Your task to perform on an android device: change notifications settings Image 0: 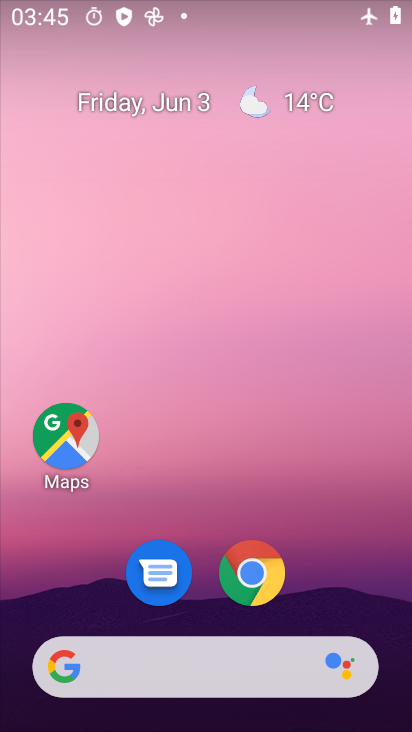
Step 0: drag from (225, 674) to (253, 3)
Your task to perform on an android device: change notifications settings Image 1: 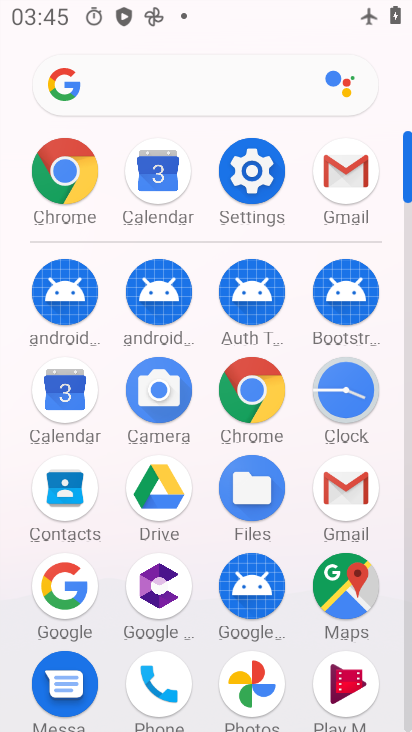
Step 1: click (245, 170)
Your task to perform on an android device: change notifications settings Image 2: 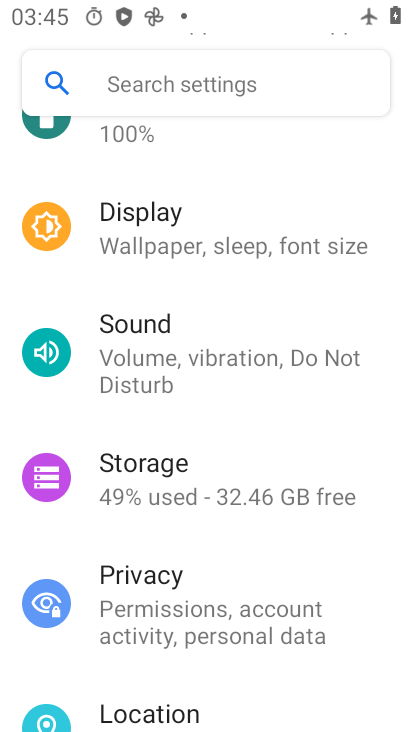
Step 2: drag from (231, 264) to (236, 655)
Your task to perform on an android device: change notifications settings Image 3: 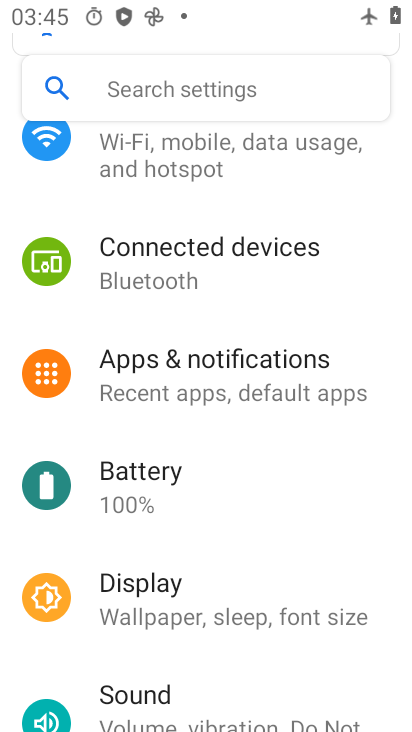
Step 3: click (253, 378)
Your task to perform on an android device: change notifications settings Image 4: 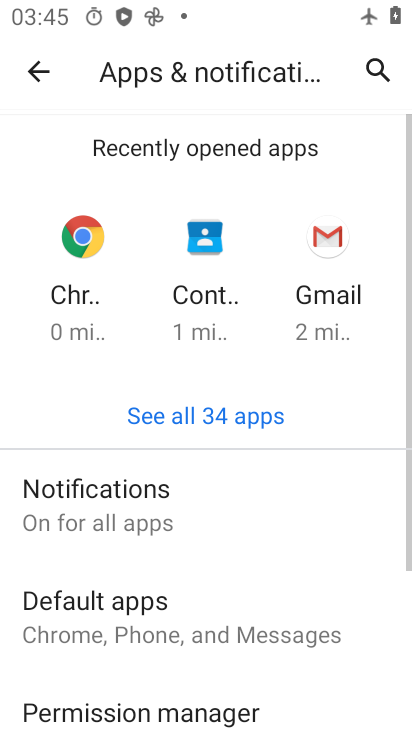
Step 4: drag from (272, 587) to (284, 365)
Your task to perform on an android device: change notifications settings Image 5: 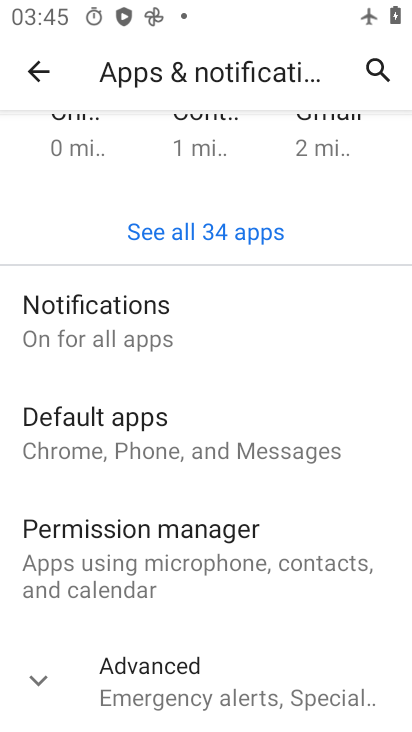
Step 5: click (176, 327)
Your task to perform on an android device: change notifications settings Image 6: 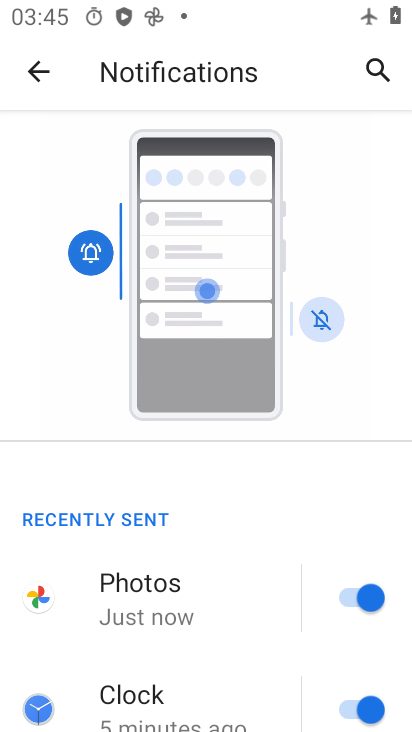
Step 6: task complete